Your task to perform on an android device: Check the weather Image 0: 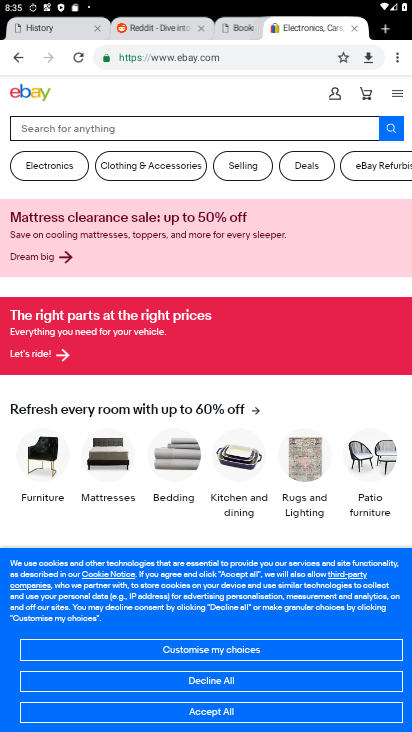
Step 0: press home button
Your task to perform on an android device: Check the weather Image 1: 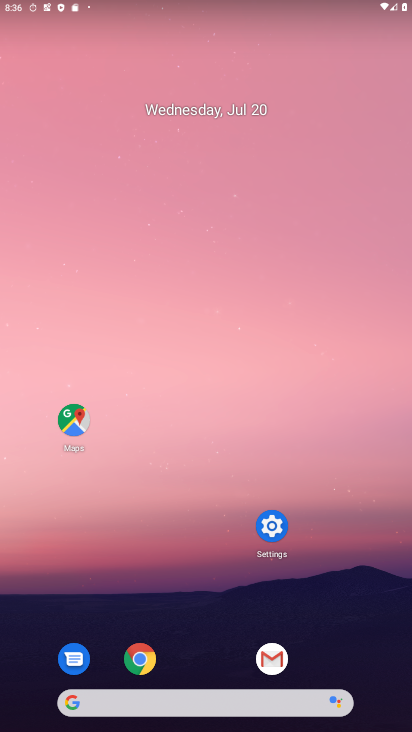
Step 1: click (176, 710)
Your task to perform on an android device: Check the weather Image 2: 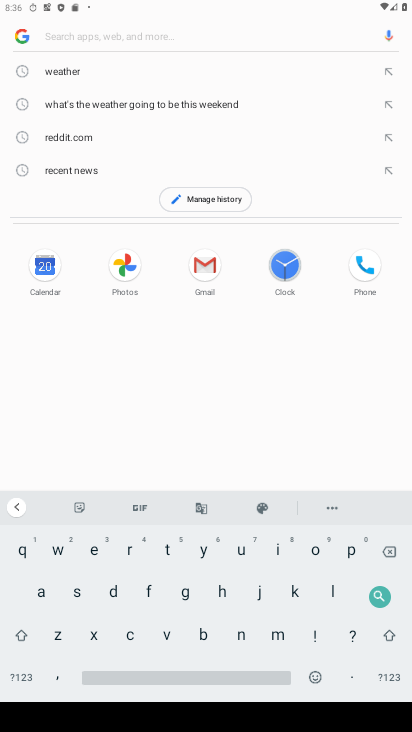
Step 2: click (69, 71)
Your task to perform on an android device: Check the weather Image 3: 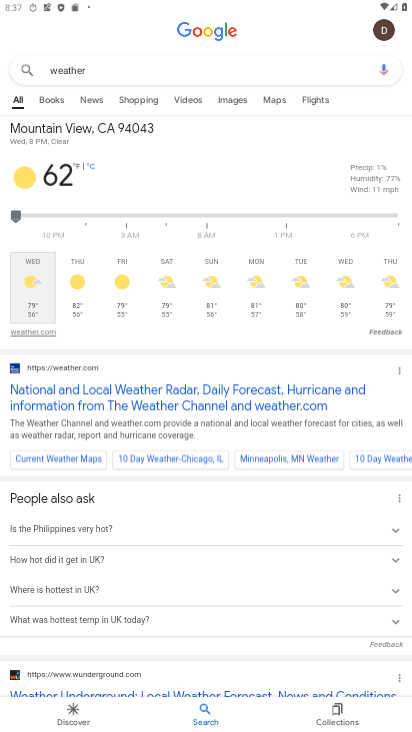
Step 3: task complete